Your task to perform on an android device: change keyboard looks Image 0: 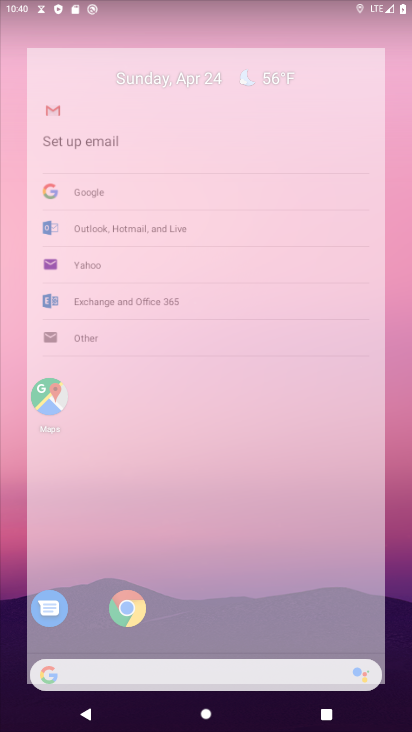
Step 0: drag from (196, 650) to (207, 224)
Your task to perform on an android device: change keyboard looks Image 1: 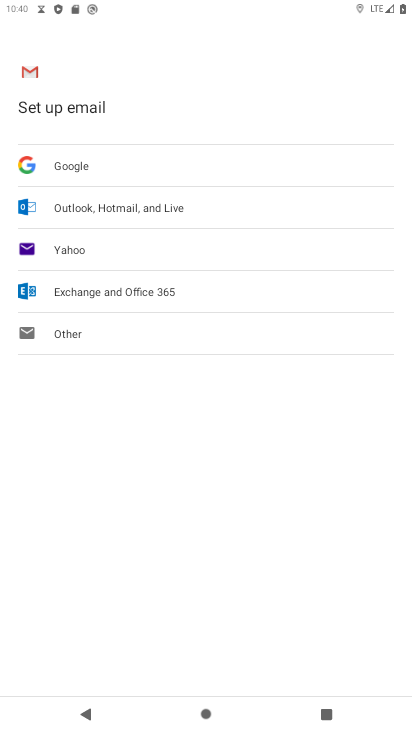
Step 1: press home button
Your task to perform on an android device: change keyboard looks Image 2: 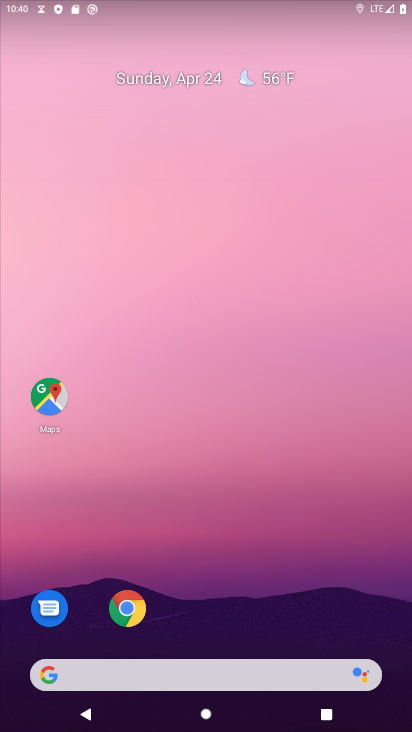
Step 2: drag from (201, 647) to (185, 0)
Your task to perform on an android device: change keyboard looks Image 3: 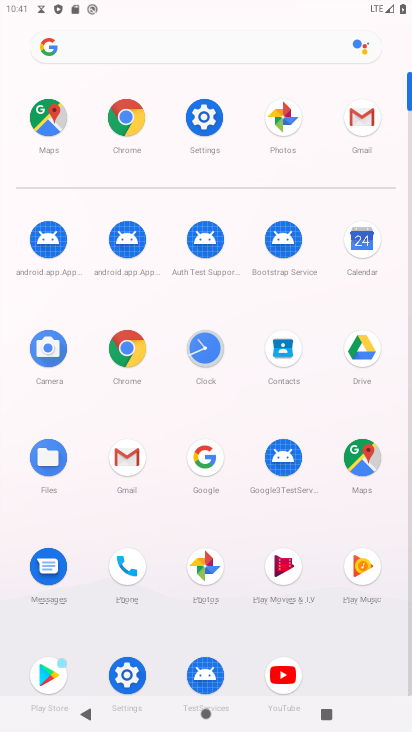
Step 3: click (216, 123)
Your task to perform on an android device: change keyboard looks Image 4: 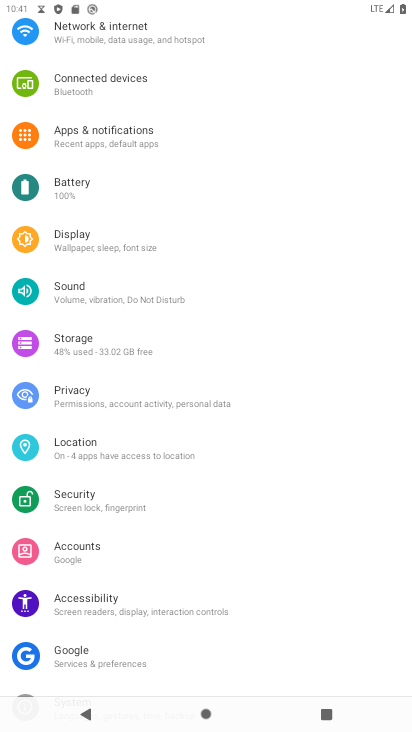
Step 4: drag from (63, 632) to (111, 244)
Your task to perform on an android device: change keyboard looks Image 5: 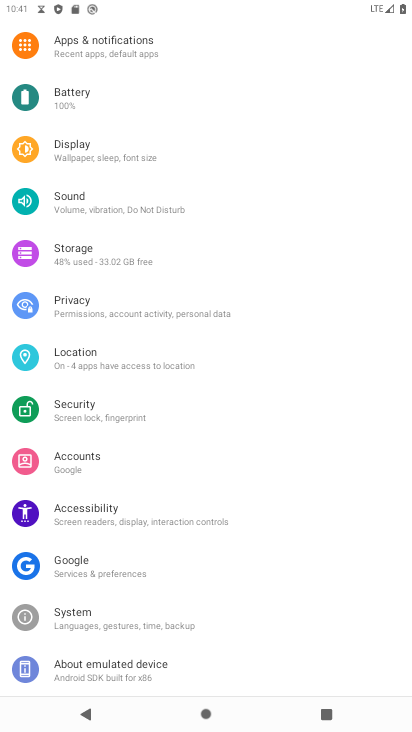
Step 5: click (75, 616)
Your task to perform on an android device: change keyboard looks Image 6: 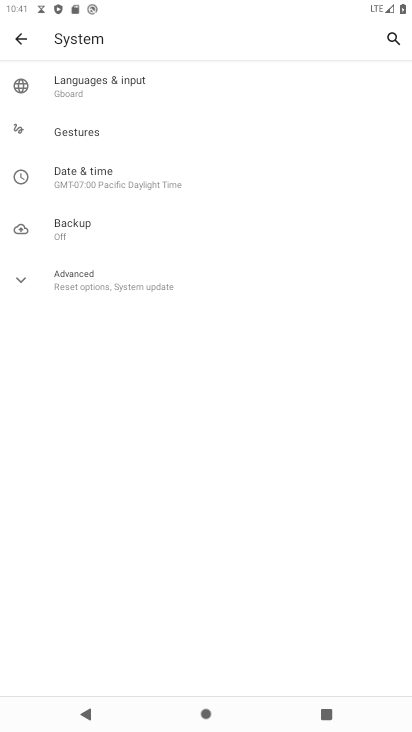
Step 6: click (66, 102)
Your task to perform on an android device: change keyboard looks Image 7: 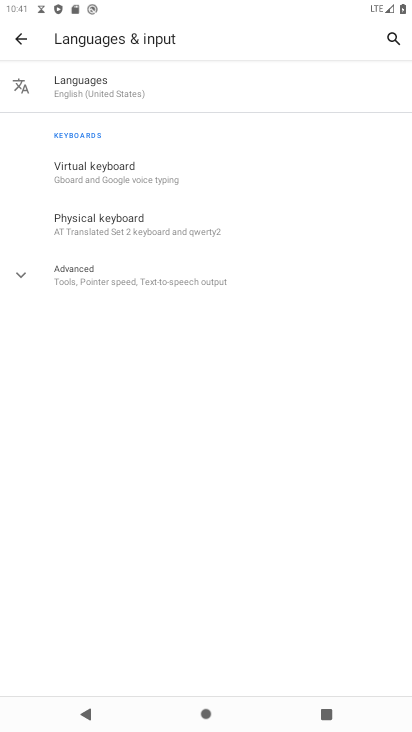
Step 7: click (78, 161)
Your task to perform on an android device: change keyboard looks Image 8: 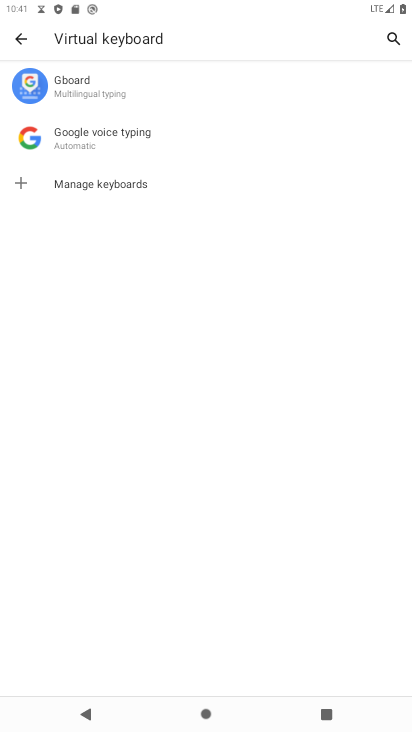
Step 8: click (82, 93)
Your task to perform on an android device: change keyboard looks Image 9: 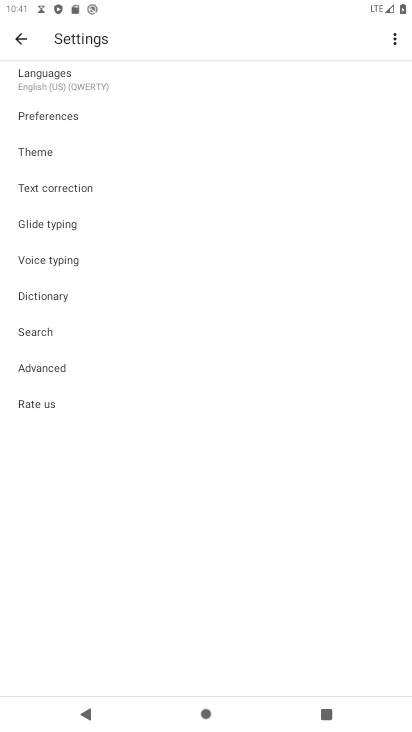
Step 9: click (30, 141)
Your task to perform on an android device: change keyboard looks Image 10: 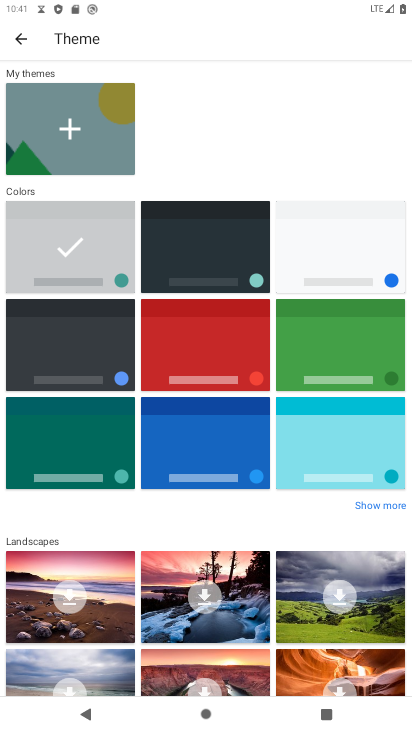
Step 10: click (193, 279)
Your task to perform on an android device: change keyboard looks Image 11: 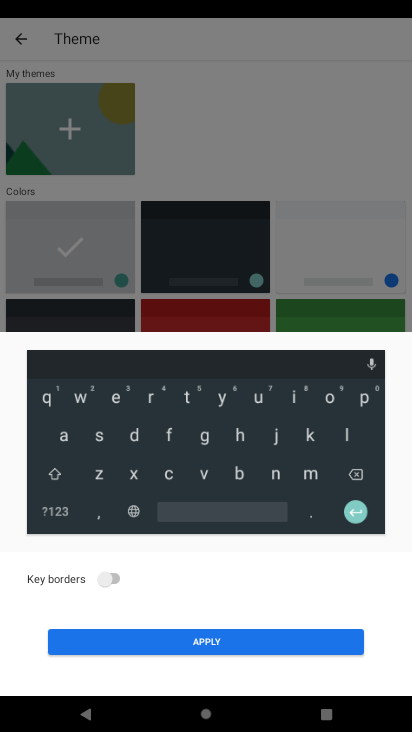
Step 11: click (145, 631)
Your task to perform on an android device: change keyboard looks Image 12: 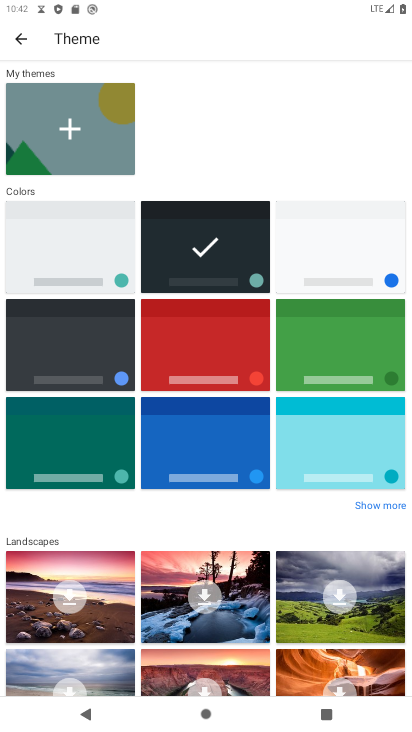
Step 12: task complete